Your task to perform on an android device: Go to battery settings Image 0: 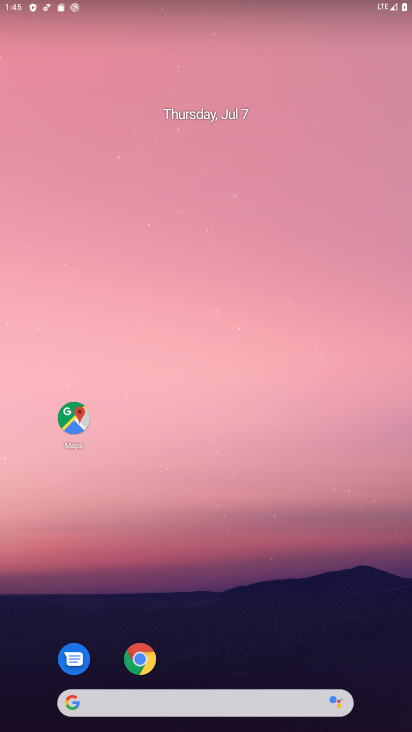
Step 0: drag from (217, 638) to (296, 140)
Your task to perform on an android device: Go to battery settings Image 1: 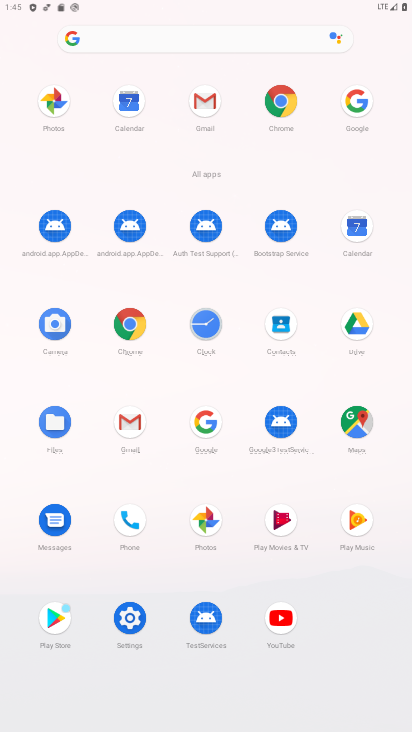
Step 1: click (130, 618)
Your task to perform on an android device: Go to battery settings Image 2: 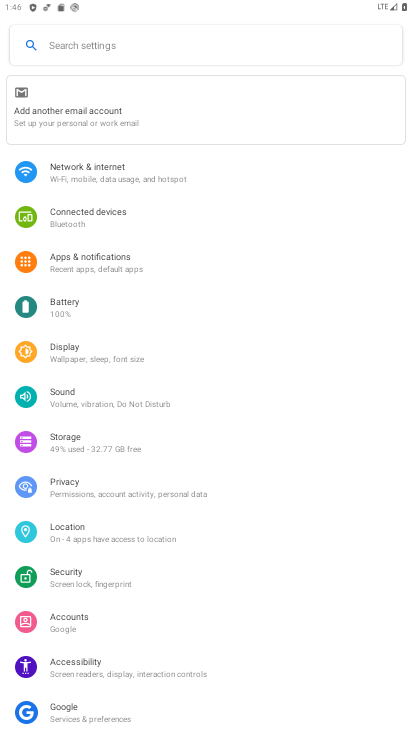
Step 2: click (58, 302)
Your task to perform on an android device: Go to battery settings Image 3: 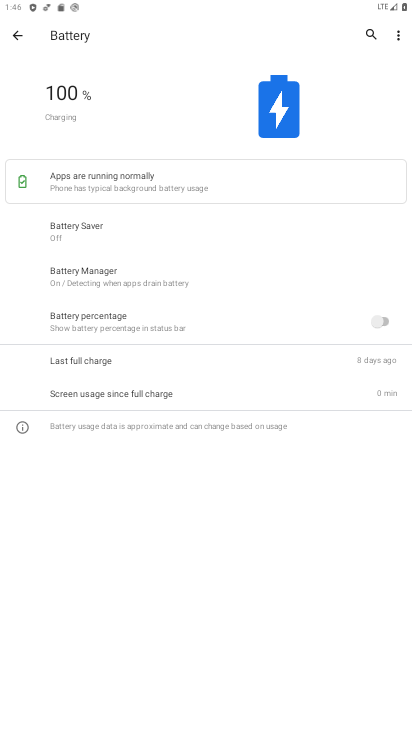
Step 3: task complete